Your task to perform on an android device: When is my next meeting? Image 0: 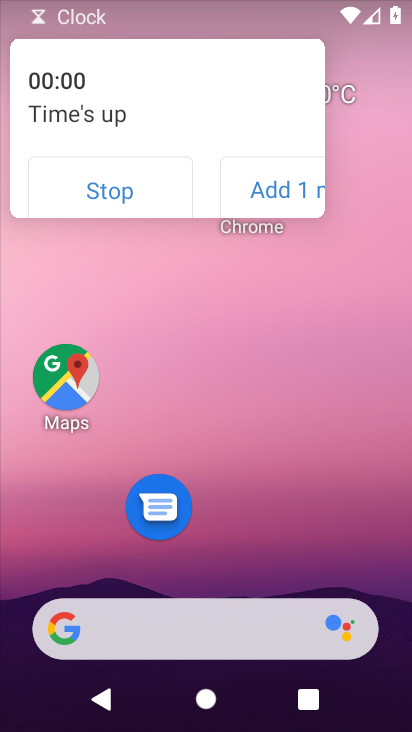
Step 0: click (189, 82)
Your task to perform on an android device: When is my next meeting? Image 1: 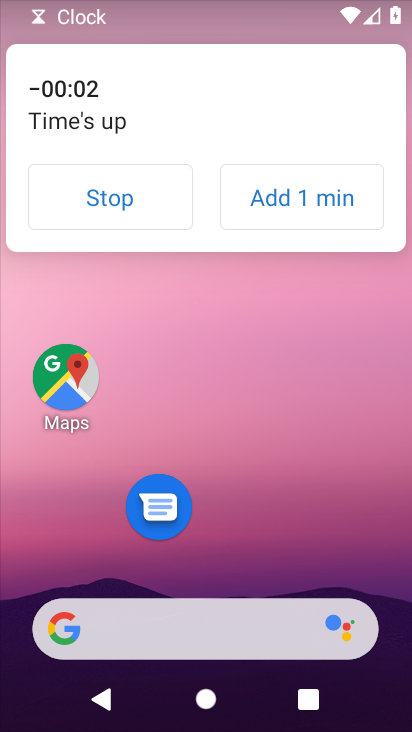
Step 1: click (163, 212)
Your task to perform on an android device: When is my next meeting? Image 2: 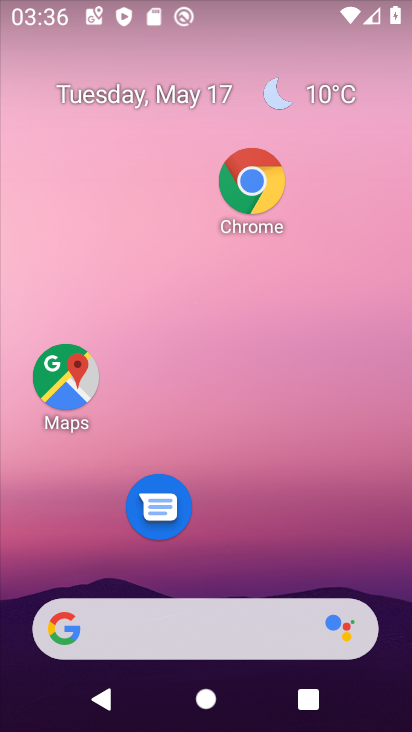
Step 2: click (140, 85)
Your task to perform on an android device: When is my next meeting? Image 3: 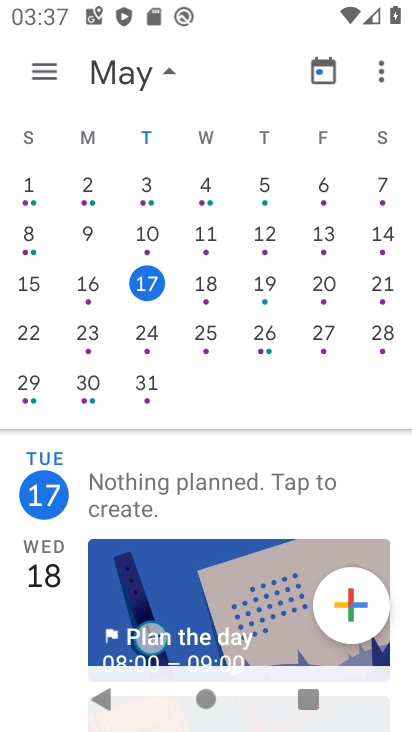
Step 3: task complete